Your task to perform on an android device: Go to privacy settings Image 0: 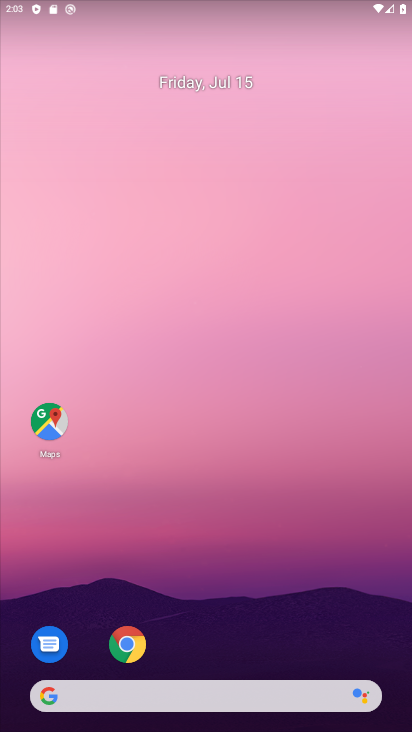
Step 0: drag from (219, 645) to (295, 2)
Your task to perform on an android device: Go to privacy settings Image 1: 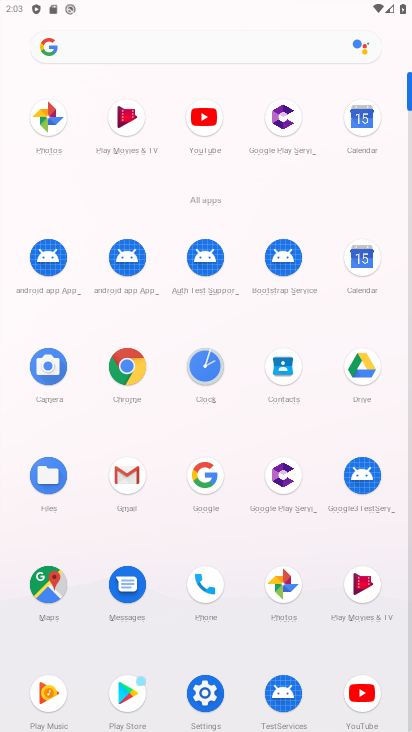
Step 1: click (211, 701)
Your task to perform on an android device: Go to privacy settings Image 2: 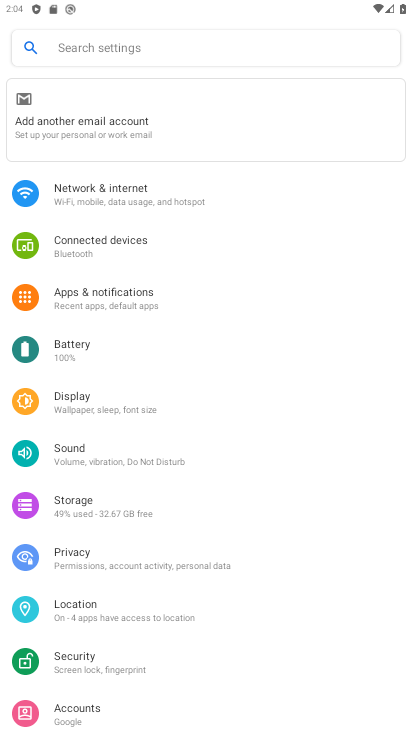
Step 2: click (88, 555)
Your task to perform on an android device: Go to privacy settings Image 3: 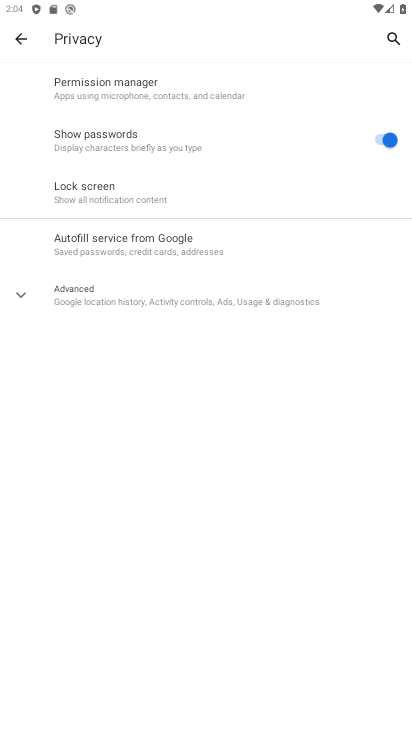
Step 3: task complete